Your task to perform on an android device: Show me productivity apps on the Play Store Image 0: 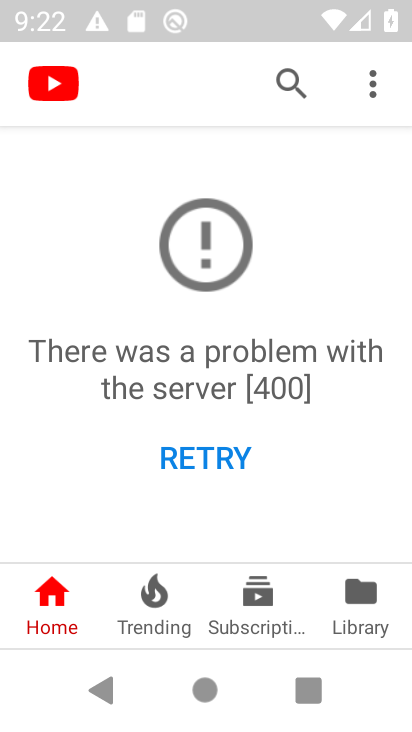
Step 0: press home button
Your task to perform on an android device: Show me productivity apps on the Play Store Image 1: 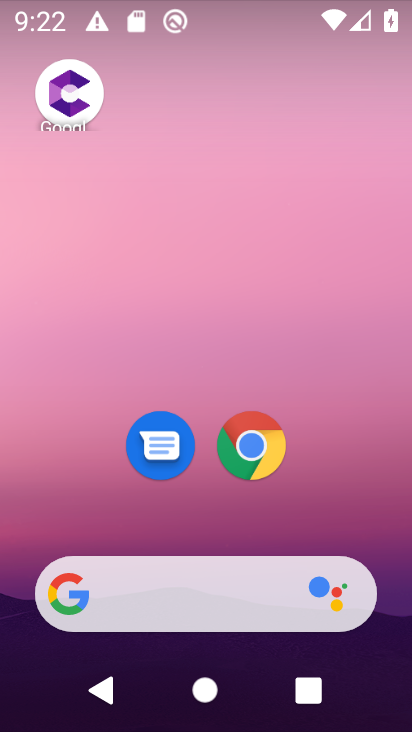
Step 1: drag from (205, 237) to (206, 58)
Your task to perform on an android device: Show me productivity apps on the Play Store Image 2: 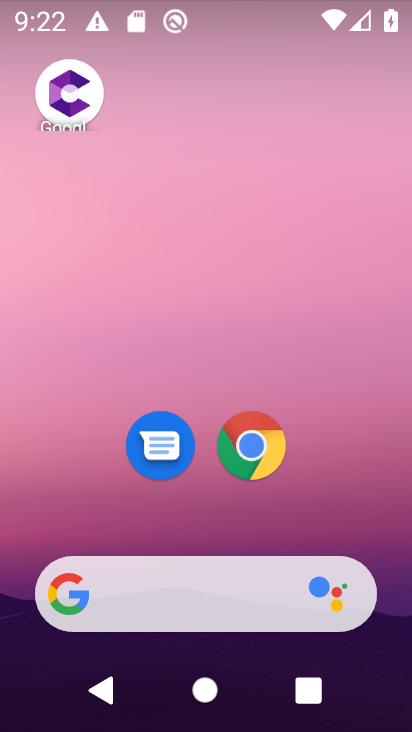
Step 2: drag from (210, 366) to (284, 62)
Your task to perform on an android device: Show me productivity apps on the Play Store Image 3: 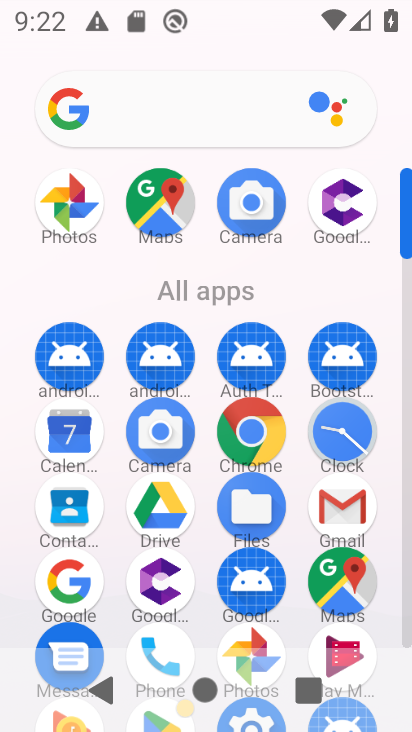
Step 3: drag from (140, 614) to (156, 359)
Your task to perform on an android device: Show me productivity apps on the Play Store Image 4: 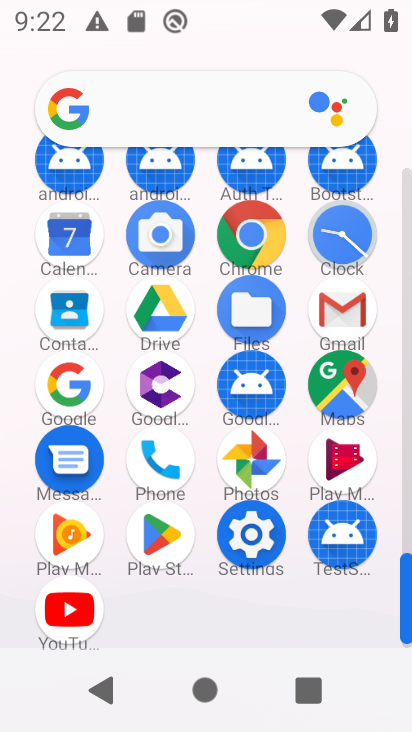
Step 4: click (158, 539)
Your task to perform on an android device: Show me productivity apps on the Play Store Image 5: 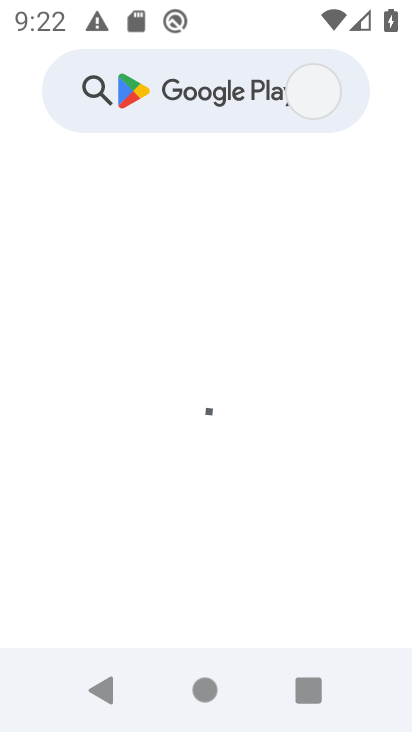
Step 5: task complete